Your task to perform on an android device: make emails show in primary in the gmail app Image 0: 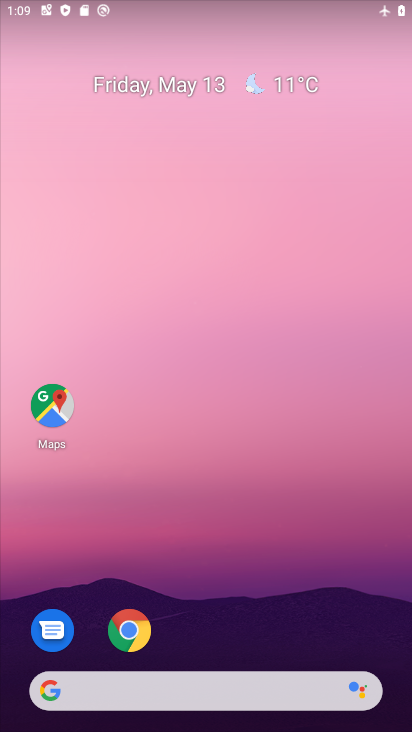
Step 0: drag from (337, 635) to (339, 62)
Your task to perform on an android device: make emails show in primary in the gmail app Image 1: 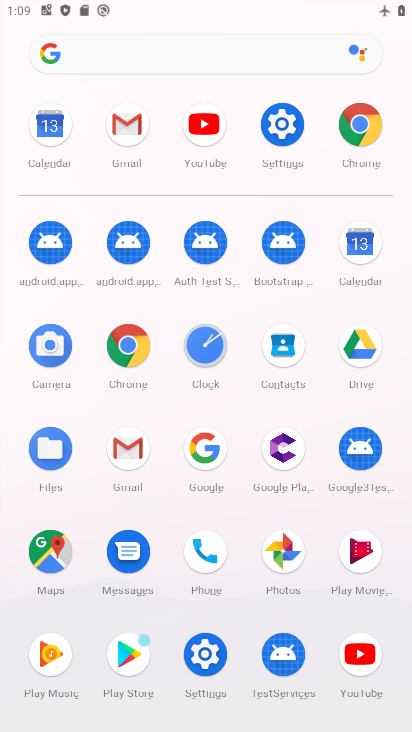
Step 1: click (124, 131)
Your task to perform on an android device: make emails show in primary in the gmail app Image 2: 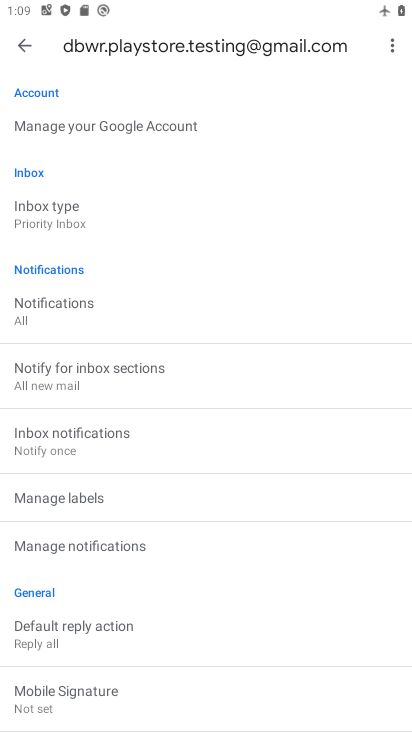
Step 2: task complete